Your task to perform on an android device: change the clock display to digital Image 0: 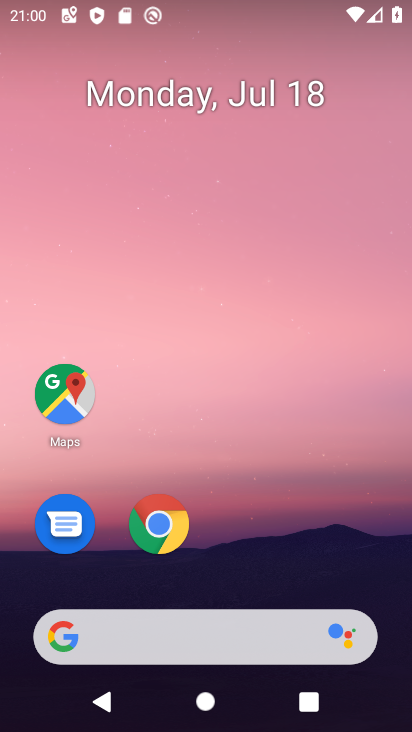
Step 0: drag from (227, 562) to (257, 37)
Your task to perform on an android device: change the clock display to digital Image 1: 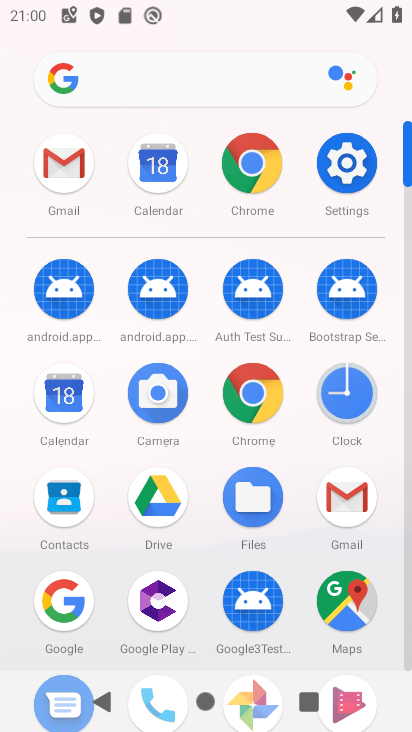
Step 1: click (352, 389)
Your task to perform on an android device: change the clock display to digital Image 2: 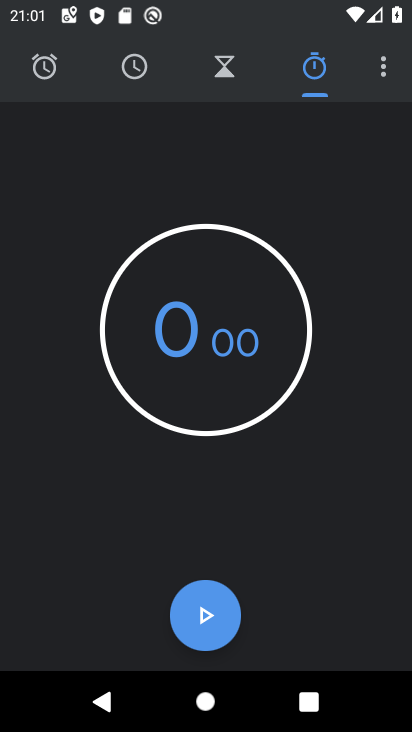
Step 2: click (141, 76)
Your task to perform on an android device: change the clock display to digital Image 3: 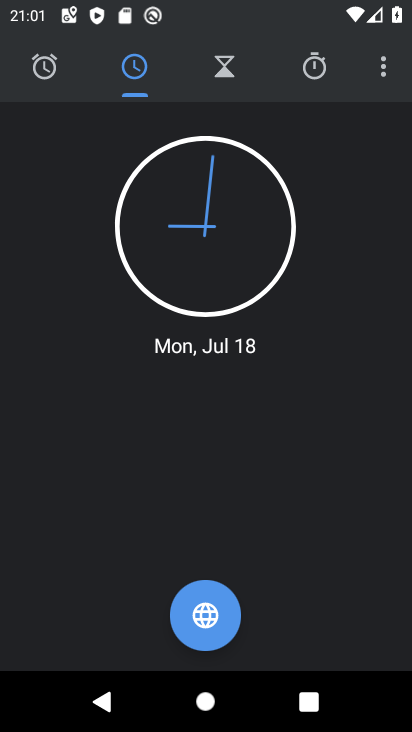
Step 3: click (384, 63)
Your task to perform on an android device: change the clock display to digital Image 4: 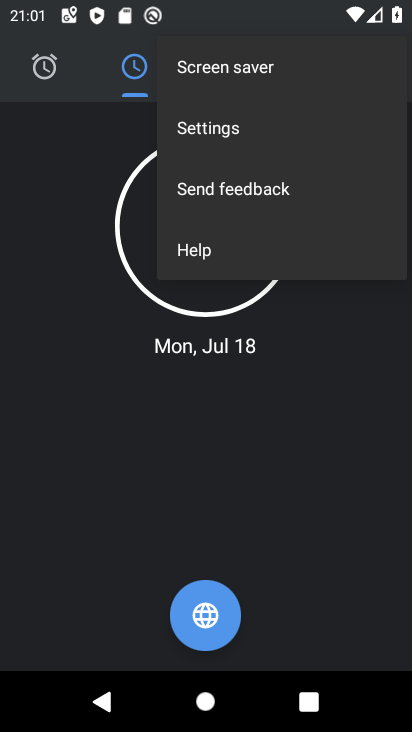
Step 4: click (233, 121)
Your task to perform on an android device: change the clock display to digital Image 5: 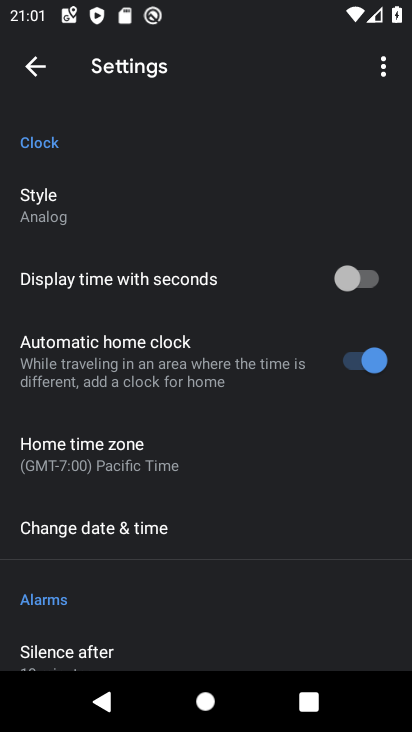
Step 5: click (72, 215)
Your task to perform on an android device: change the clock display to digital Image 6: 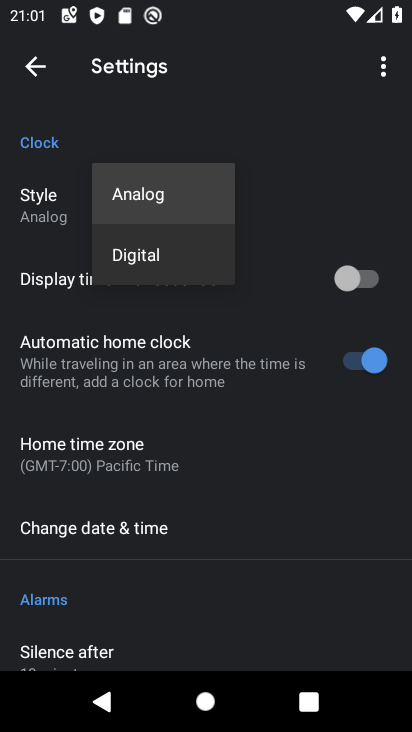
Step 6: click (126, 244)
Your task to perform on an android device: change the clock display to digital Image 7: 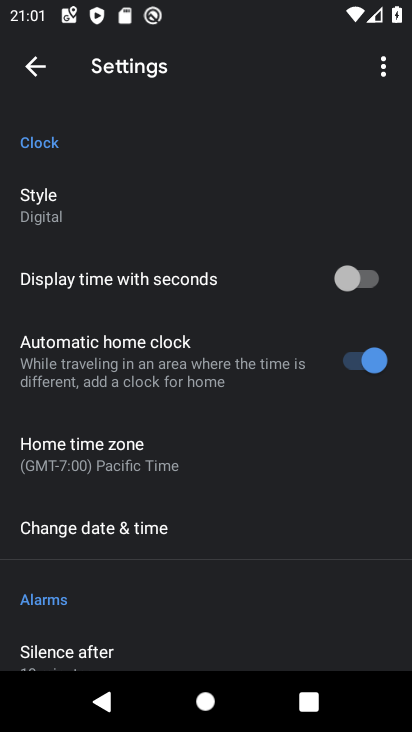
Step 7: click (40, 76)
Your task to perform on an android device: change the clock display to digital Image 8: 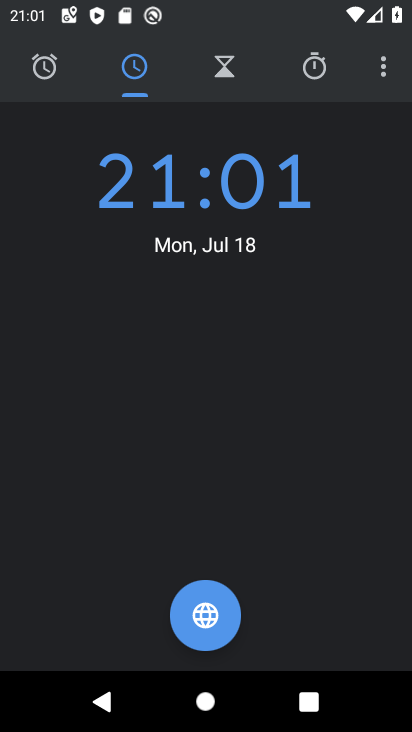
Step 8: task complete